Your task to perform on an android device: turn off data saver in the chrome app Image 0: 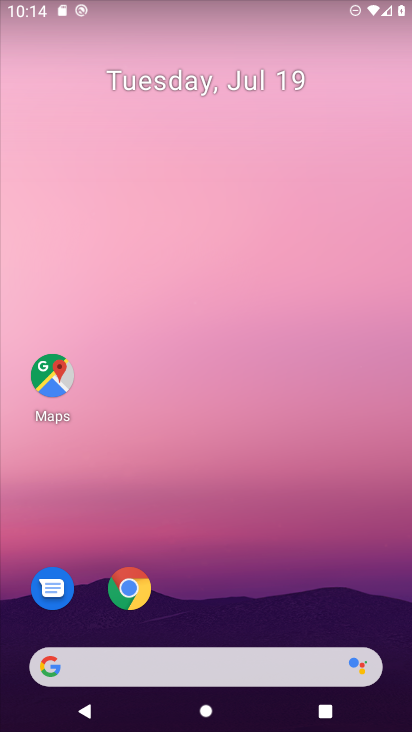
Step 0: drag from (229, 613) to (248, 35)
Your task to perform on an android device: turn off data saver in the chrome app Image 1: 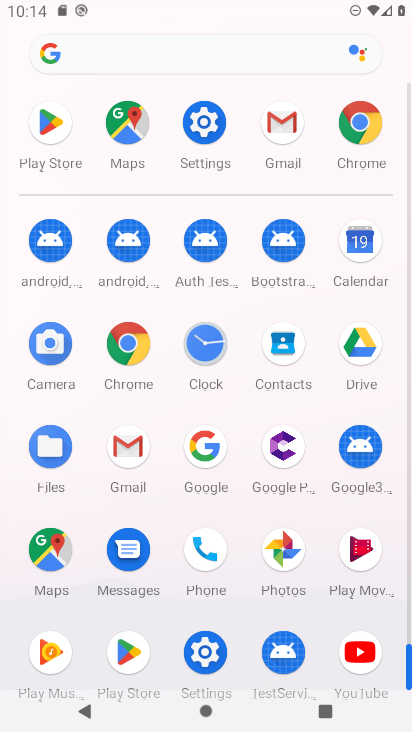
Step 1: click (360, 136)
Your task to perform on an android device: turn off data saver in the chrome app Image 2: 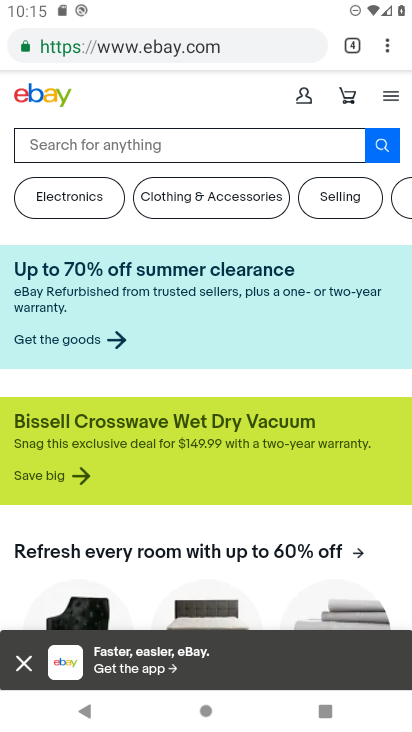
Step 2: drag from (382, 49) to (298, 264)
Your task to perform on an android device: turn off data saver in the chrome app Image 3: 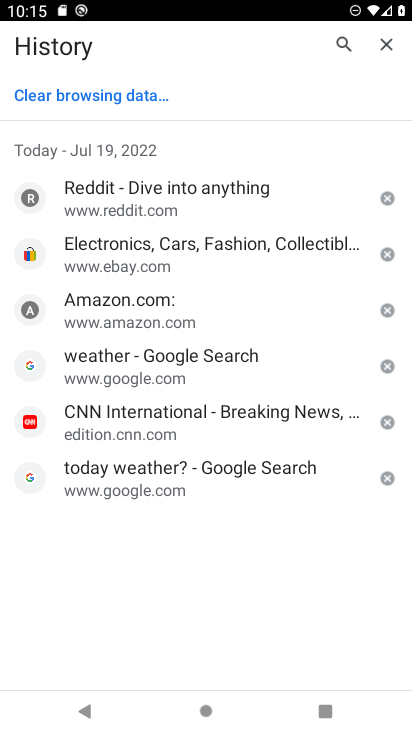
Step 3: press back button
Your task to perform on an android device: turn off data saver in the chrome app Image 4: 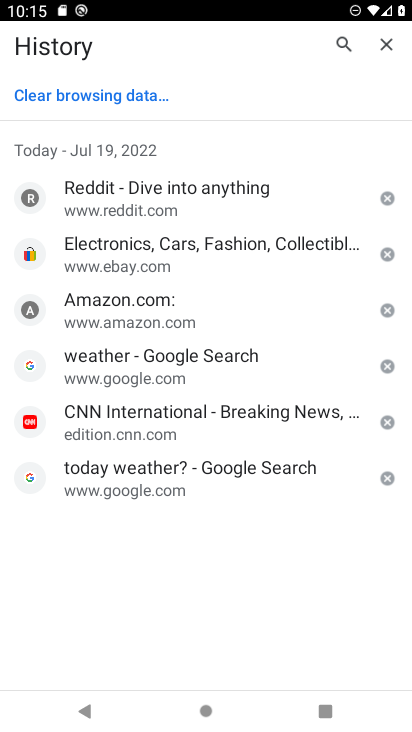
Step 4: press back button
Your task to perform on an android device: turn off data saver in the chrome app Image 5: 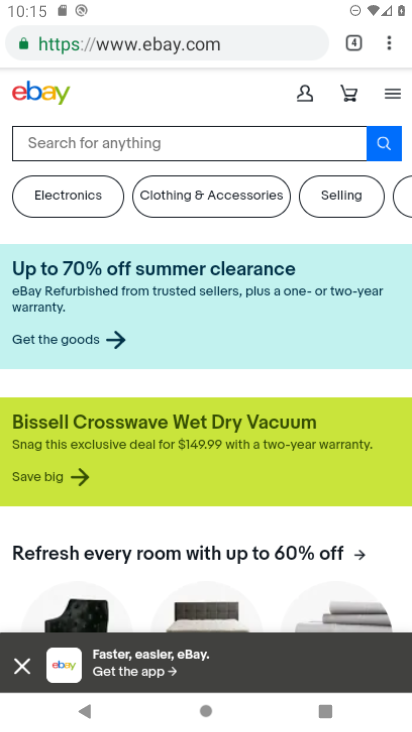
Step 5: press back button
Your task to perform on an android device: turn off data saver in the chrome app Image 6: 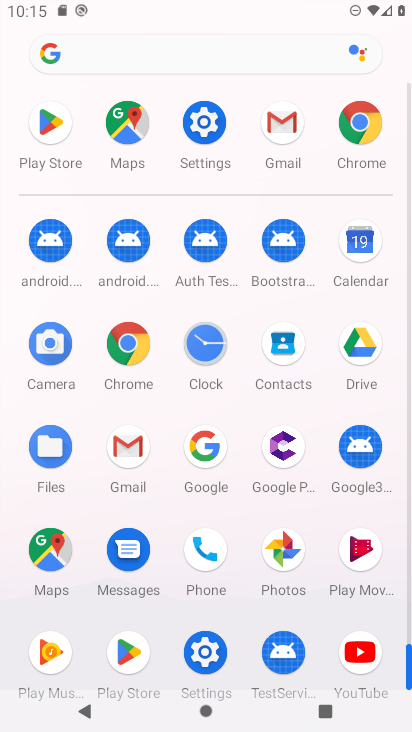
Step 6: click (385, 49)
Your task to perform on an android device: turn off data saver in the chrome app Image 7: 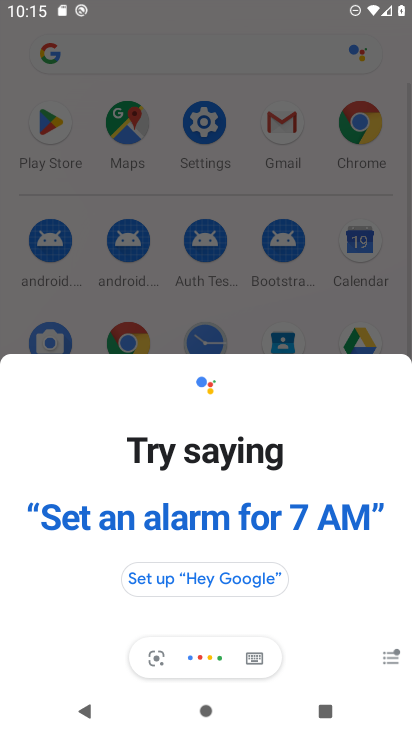
Step 7: click (317, 185)
Your task to perform on an android device: turn off data saver in the chrome app Image 8: 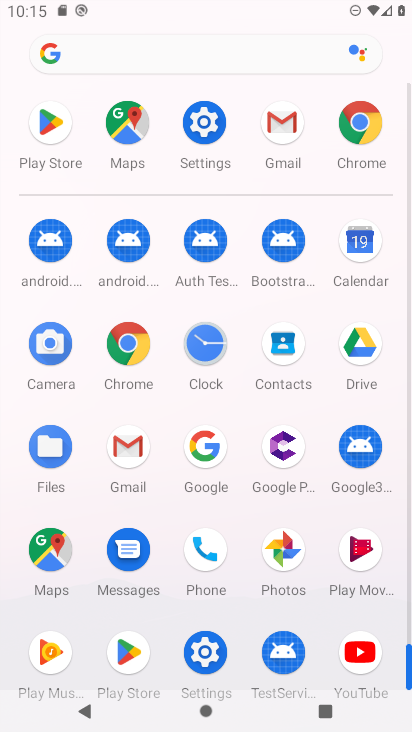
Step 8: click (370, 133)
Your task to perform on an android device: turn off data saver in the chrome app Image 9: 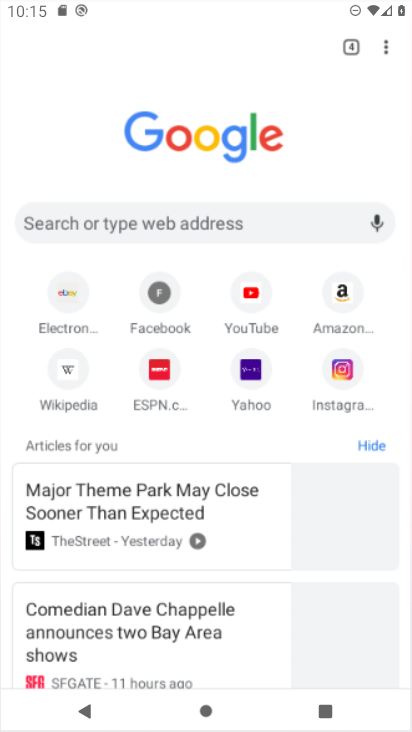
Step 9: click (372, 133)
Your task to perform on an android device: turn off data saver in the chrome app Image 10: 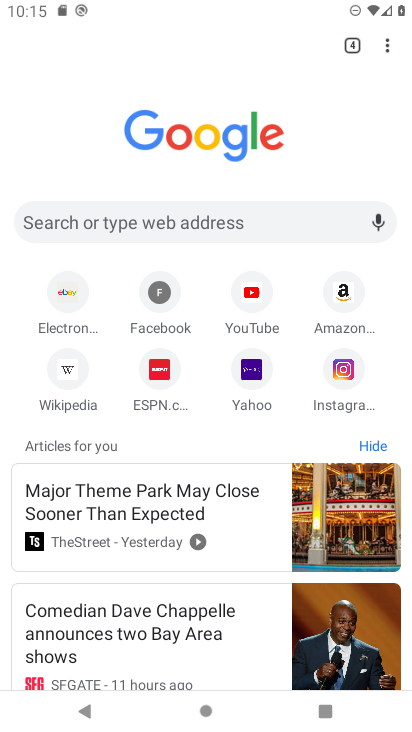
Step 10: click (136, 168)
Your task to perform on an android device: turn off data saver in the chrome app Image 11: 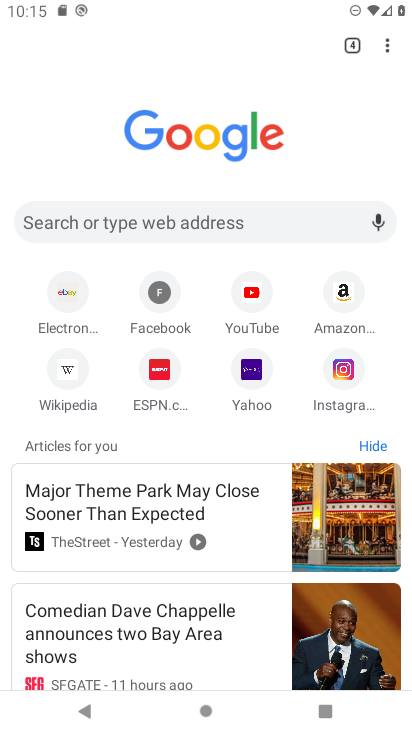
Step 11: click (141, 174)
Your task to perform on an android device: turn off data saver in the chrome app Image 12: 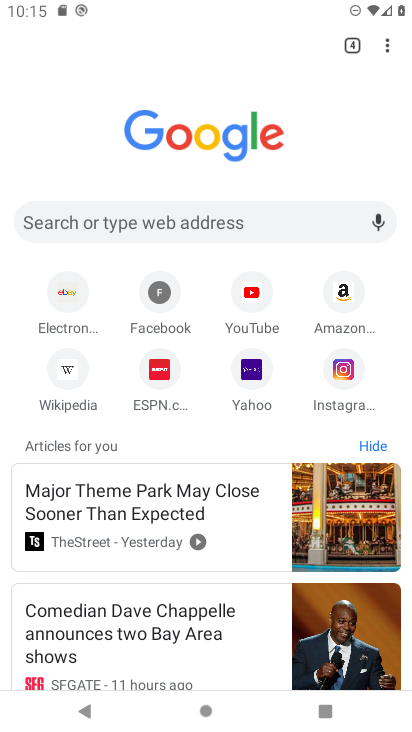
Step 12: drag from (385, 50) to (243, 379)
Your task to perform on an android device: turn off data saver in the chrome app Image 13: 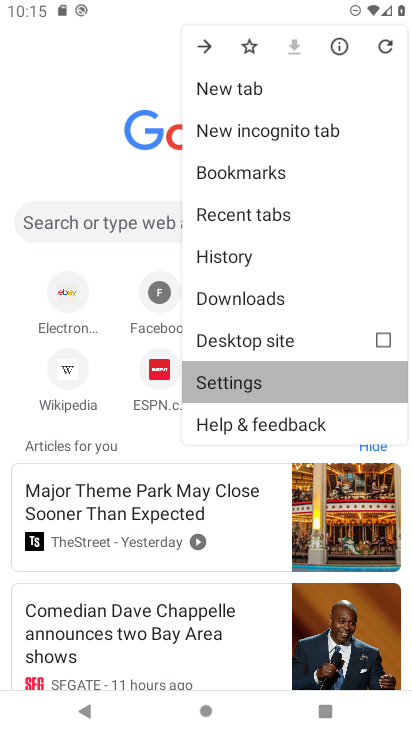
Step 13: click (242, 380)
Your task to perform on an android device: turn off data saver in the chrome app Image 14: 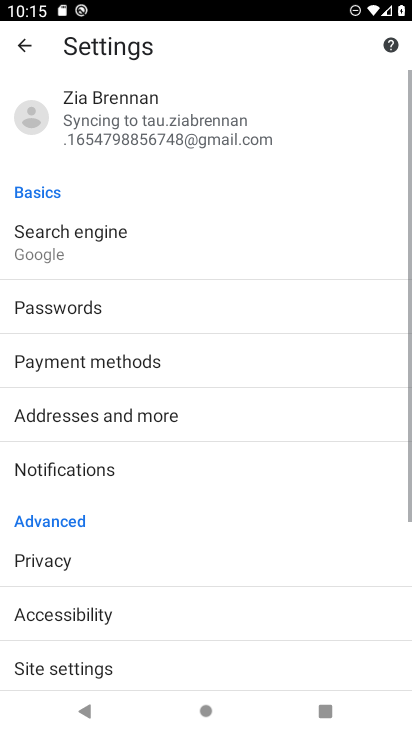
Step 14: drag from (164, 543) to (144, 243)
Your task to perform on an android device: turn off data saver in the chrome app Image 15: 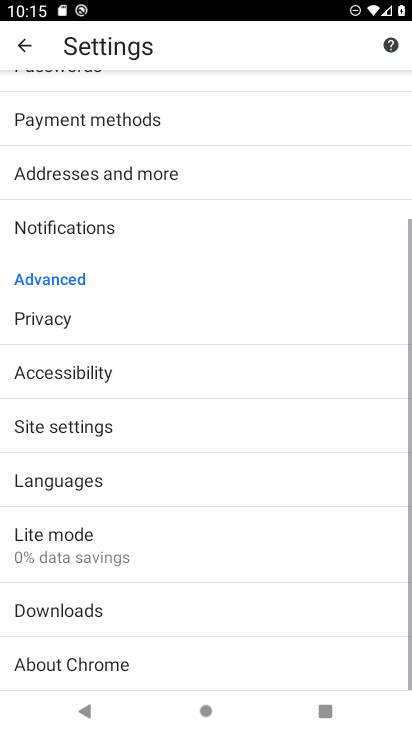
Step 15: drag from (120, 547) to (117, 267)
Your task to perform on an android device: turn off data saver in the chrome app Image 16: 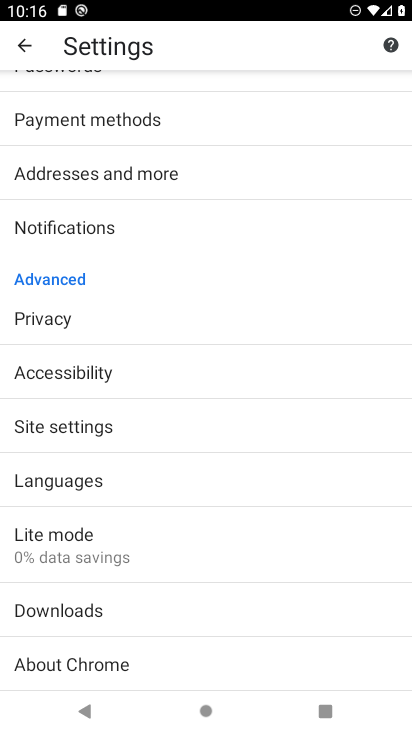
Step 16: click (65, 542)
Your task to perform on an android device: turn off data saver in the chrome app Image 17: 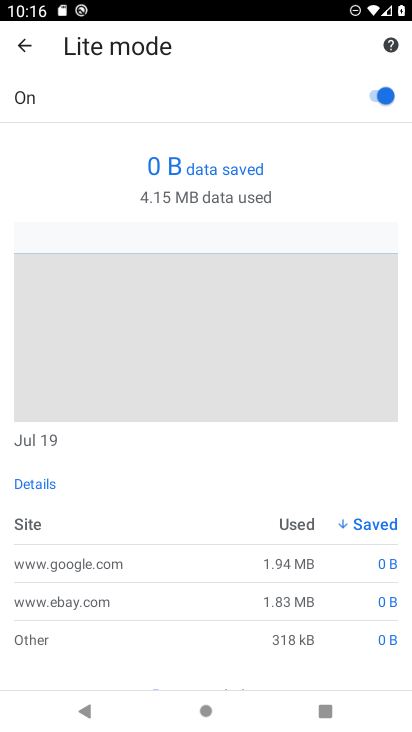
Step 17: drag from (180, 433) to (208, 119)
Your task to perform on an android device: turn off data saver in the chrome app Image 18: 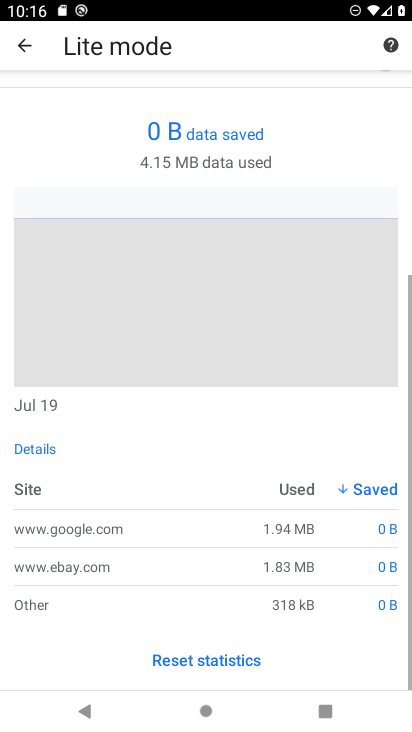
Step 18: drag from (226, 336) to (249, 180)
Your task to perform on an android device: turn off data saver in the chrome app Image 19: 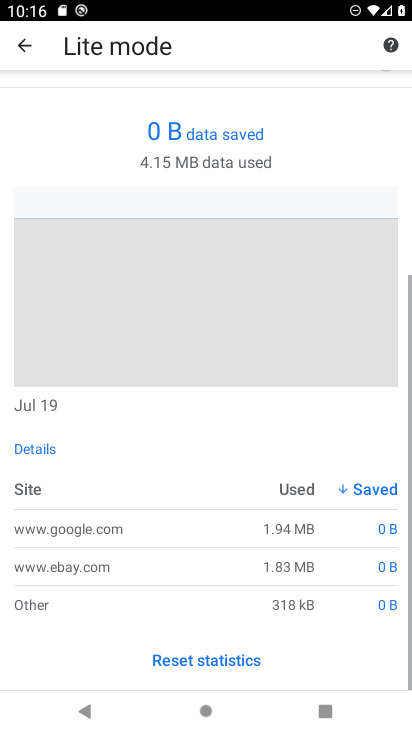
Step 19: drag from (293, 181) to (293, 496)
Your task to perform on an android device: turn off data saver in the chrome app Image 20: 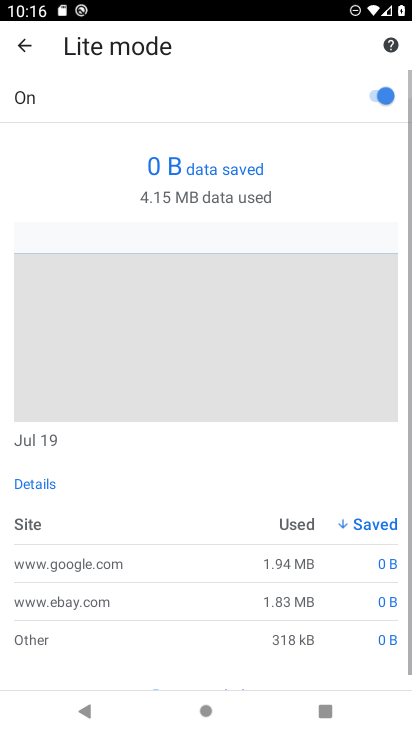
Step 20: drag from (260, 248) to (251, 511)
Your task to perform on an android device: turn off data saver in the chrome app Image 21: 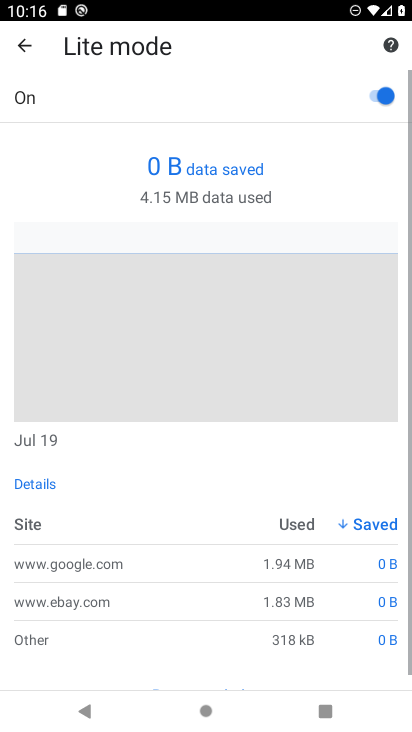
Step 21: click (378, 95)
Your task to perform on an android device: turn off data saver in the chrome app Image 22: 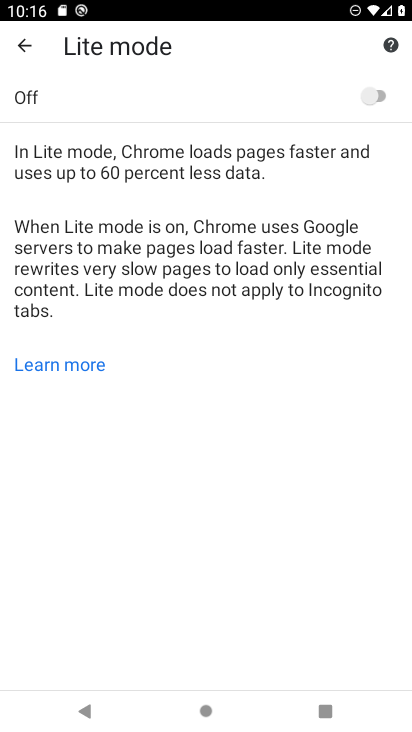
Step 22: task complete